Your task to perform on an android device: change your default location settings in chrome Image 0: 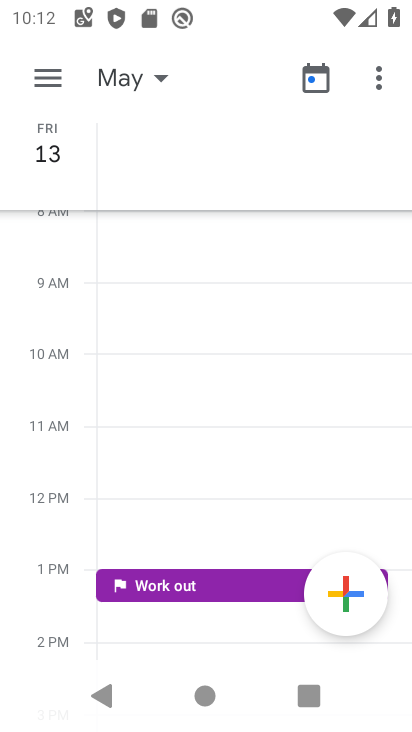
Step 0: press home button
Your task to perform on an android device: change your default location settings in chrome Image 1: 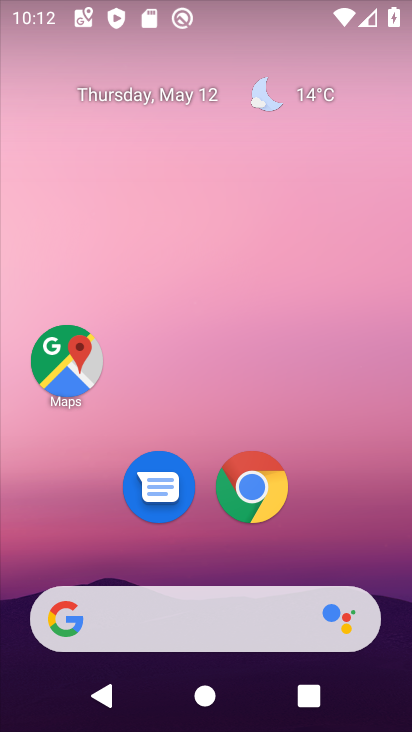
Step 1: drag from (41, 559) to (260, 145)
Your task to perform on an android device: change your default location settings in chrome Image 2: 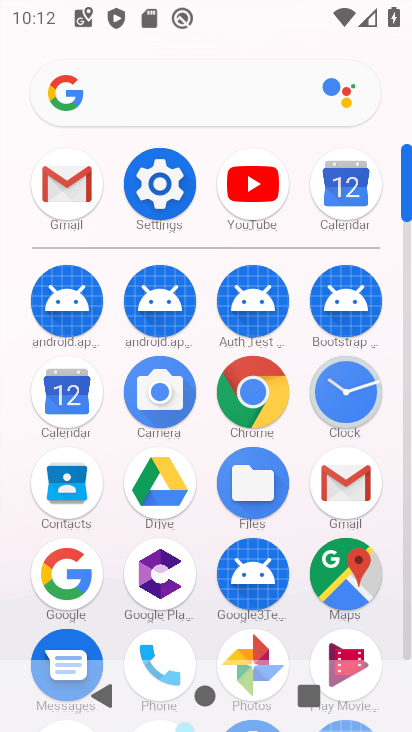
Step 2: click (248, 396)
Your task to perform on an android device: change your default location settings in chrome Image 3: 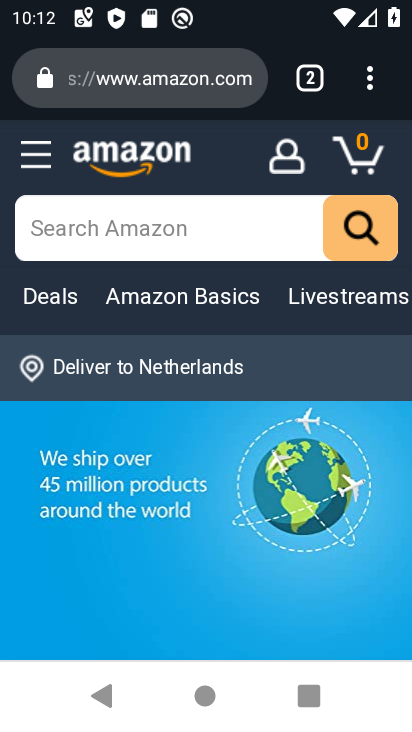
Step 3: click (372, 72)
Your task to perform on an android device: change your default location settings in chrome Image 4: 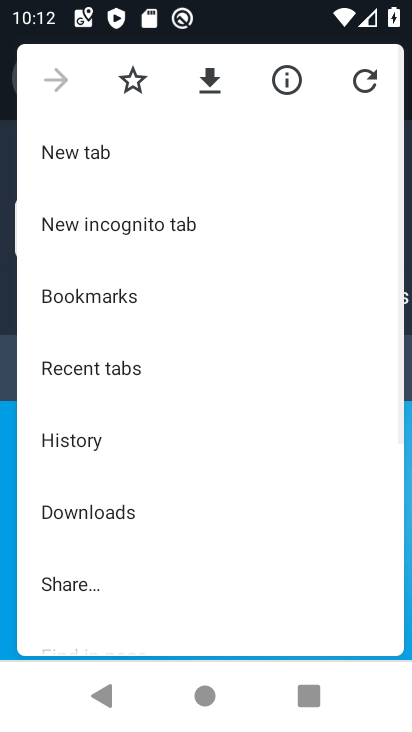
Step 4: drag from (106, 590) to (241, 117)
Your task to perform on an android device: change your default location settings in chrome Image 5: 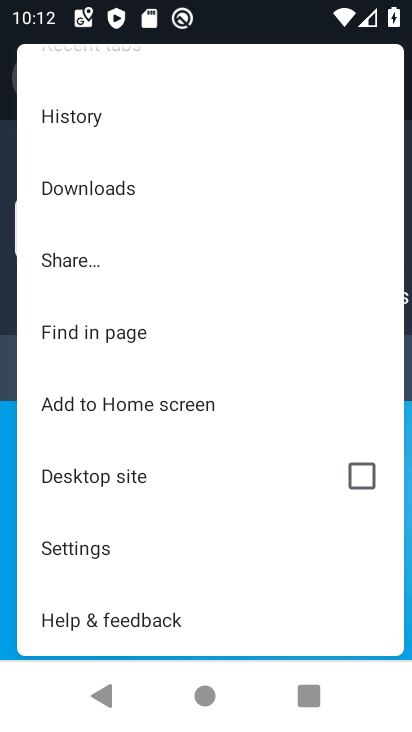
Step 5: click (118, 555)
Your task to perform on an android device: change your default location settings in chrome Image 6: 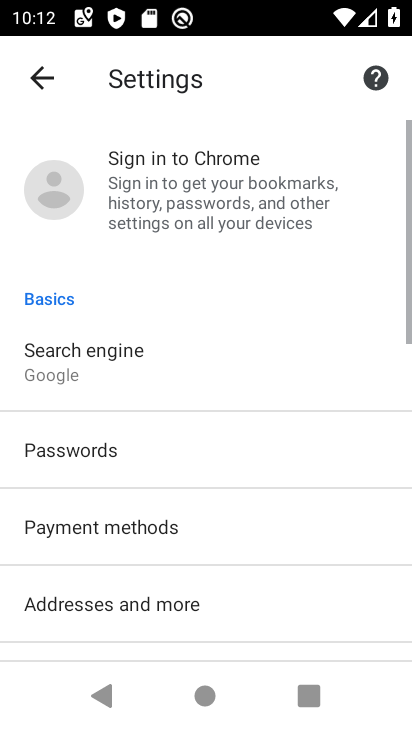
Step 6: drag from (16, 614) to (229, 186)
Your task to perform on an android device: change your default location settings in chrome Image 7: 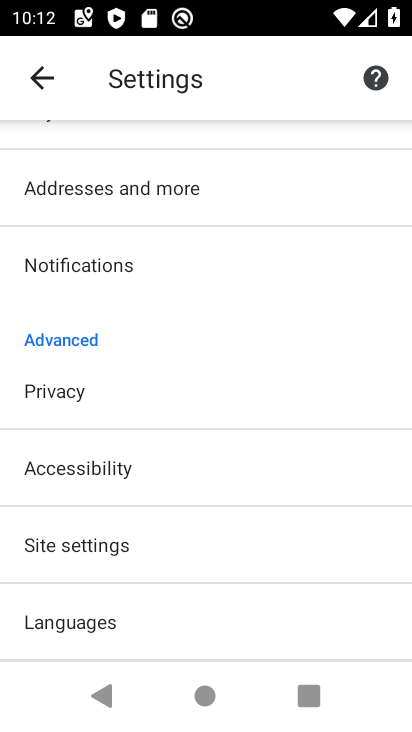
Step 7: click (100, 552)
Your task to perform on an android device: change your default location settings in chrome Image 8: 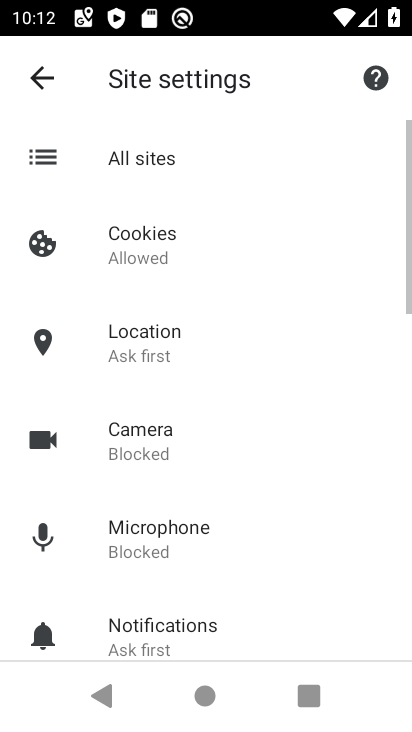
Step 8: click (189, 352)
Your task to perform on an android device: change your default location settings in chrome Image 9: 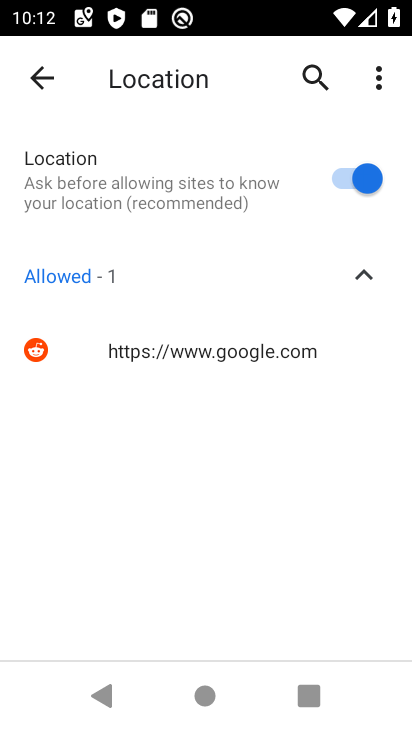
Step 9: click (376, 174)
Your task to perform on an android device: change your default location settings in chrome Image 10: 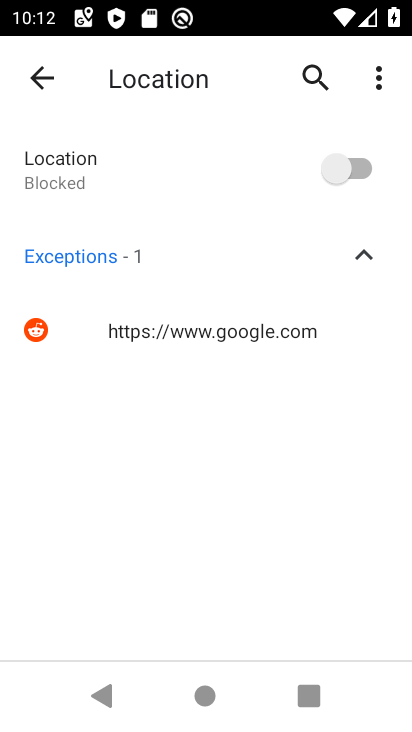
Step 10: task complete